Your task to perform on an android device: Search for Mexican restaurants on Maps Image 0: 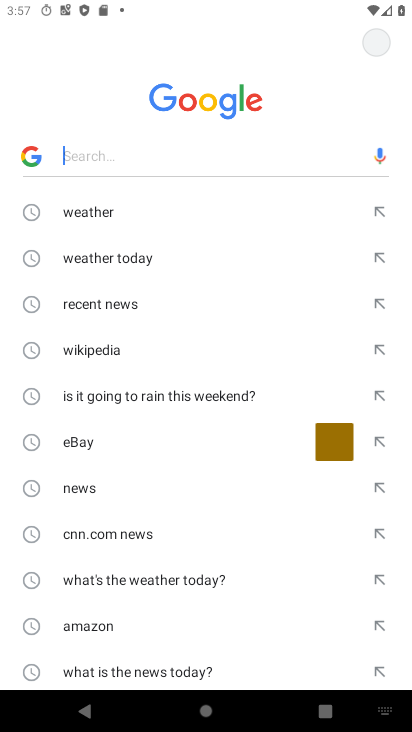
Step 0: press home button
Your task to perform on an android device: Search for Mexican restaurants on Maps Image 1: 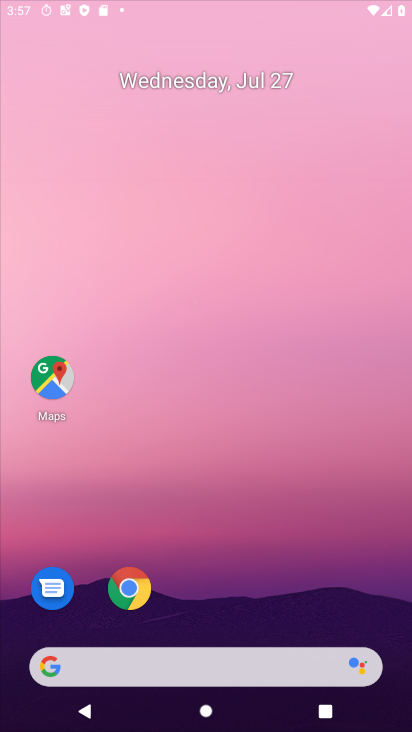
Step 1: press home button
Your task to perform on an android device: Search for Mexican restaurants on Maps Image 2: 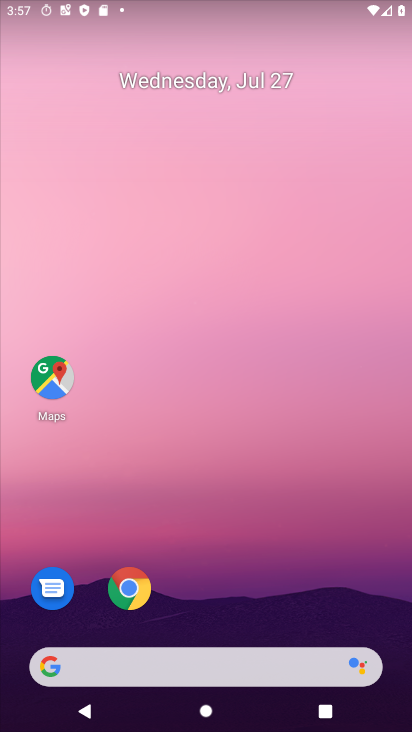
Step 2: drag from (196, 619) to (147, 111)
Your task to perform on an android device: Search for Mexican restaurants on Maps Image 3: 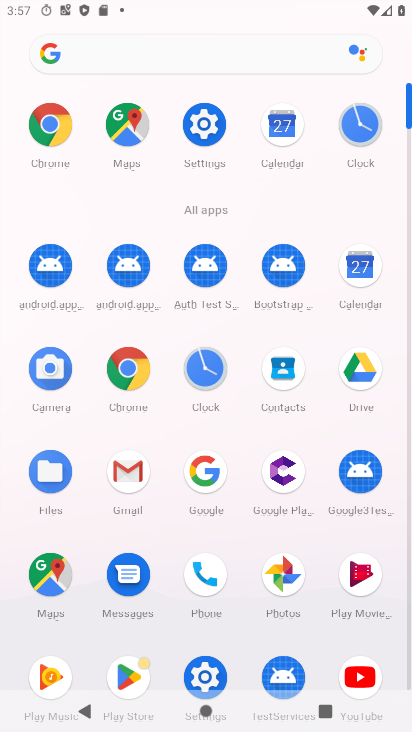
Step 3: click (129, 130)
Your task to perform on an android device: Search for Mexican restaurants on Maps Image 4: 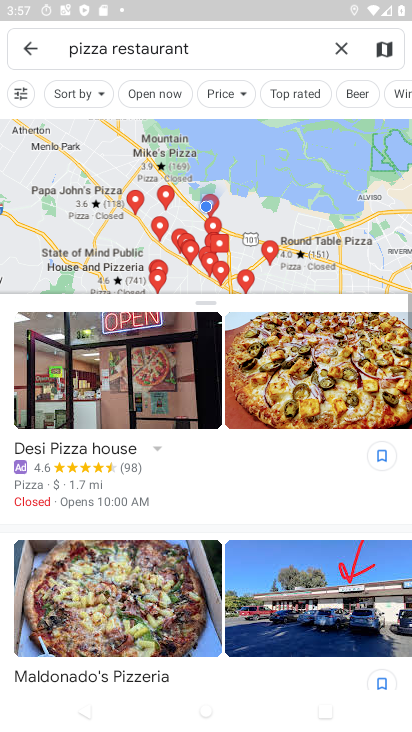
Step 4: click (30, 49)
Your task to perform on an android device: Search for Mexican restaurants on Maps Image 5: 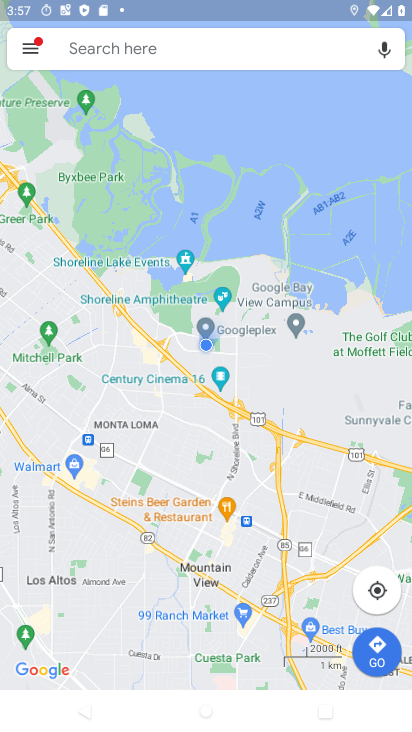
Step 5: click (144, 38)
Your task to perform on an android device: Search for Mexican restaurants on Maps Image 6: 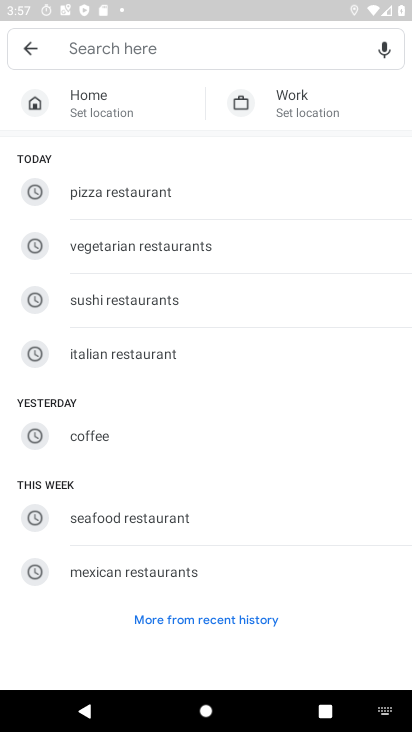
Step 6: click (123, 573)
Your task to perform on an android device: Search for Mexican restaurants on Maps Image 7: 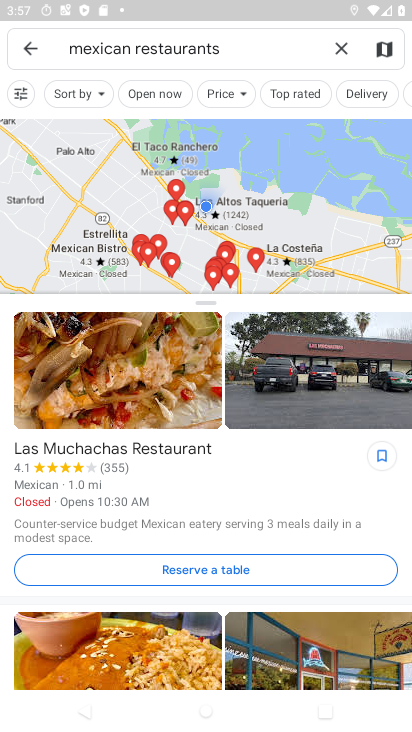
Step 7: task complete